Your task to perform on an android device: turn on data saver in the chrome app Image 0: 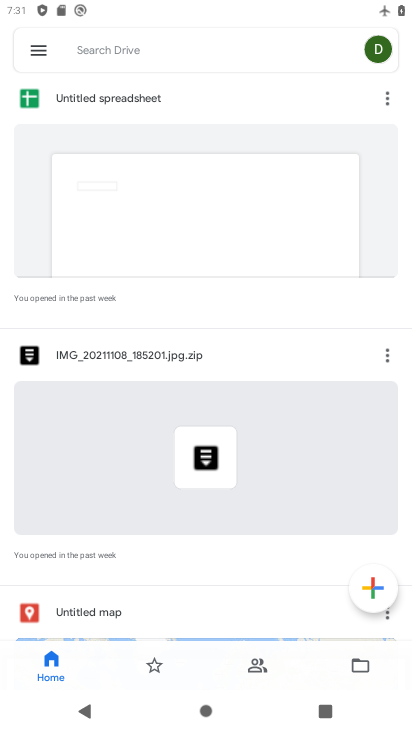
Step 0: press home button
Your task to perform on an android device: turn on data saver in the chrome app Image 1: 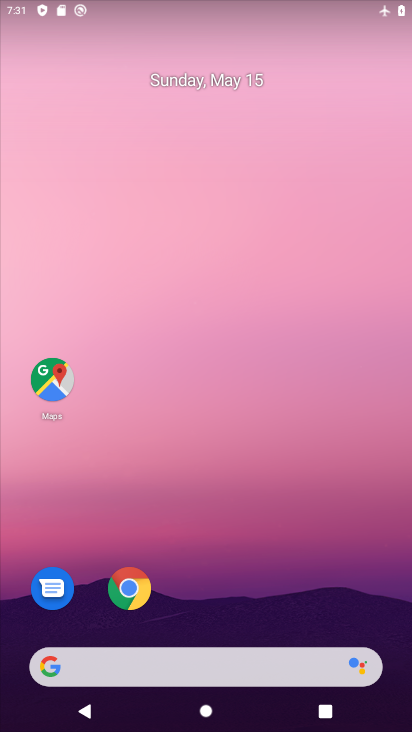
Step 1: click (128, 601)
Your task to perform on an android device: turn on data saver in the chrome app Image 2: 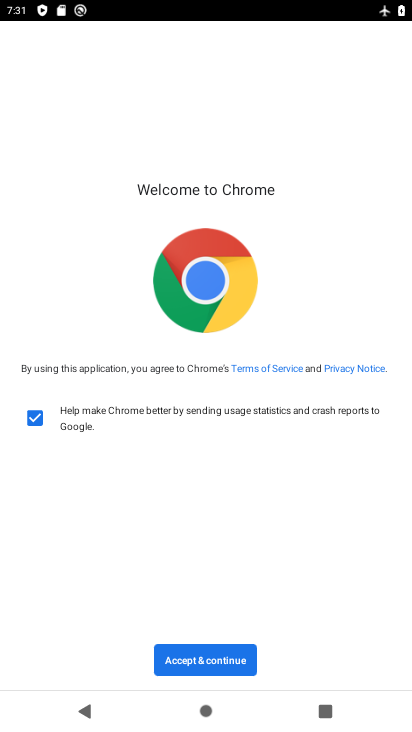
Step 2: click (219, 654)
Your task to perform on an android device: turn on data saver in the chrome app Image 3: 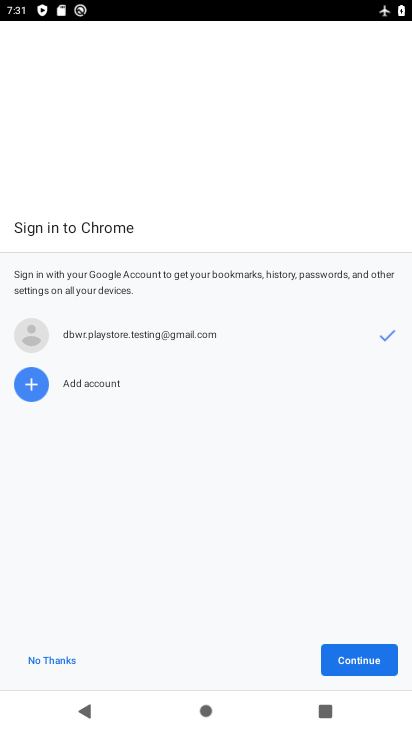
Step 3: click (355, 668)
Your task to perform on an android device: turn on data saver in the chrome app Image 4: 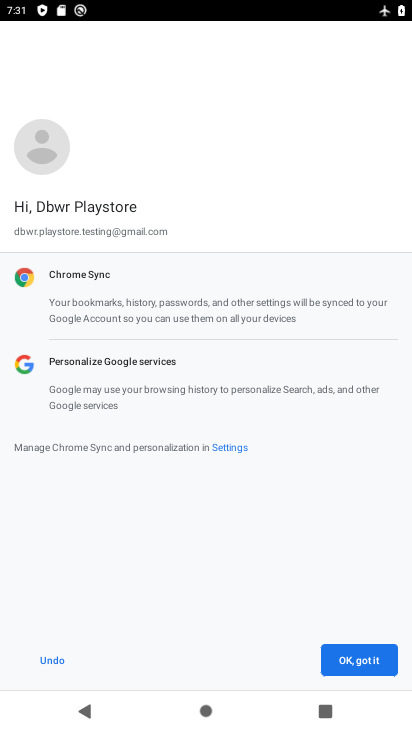
Step 4: click (355, 668)
Your task to perform on an android device: turn on data saver in the chrome app Image 5: 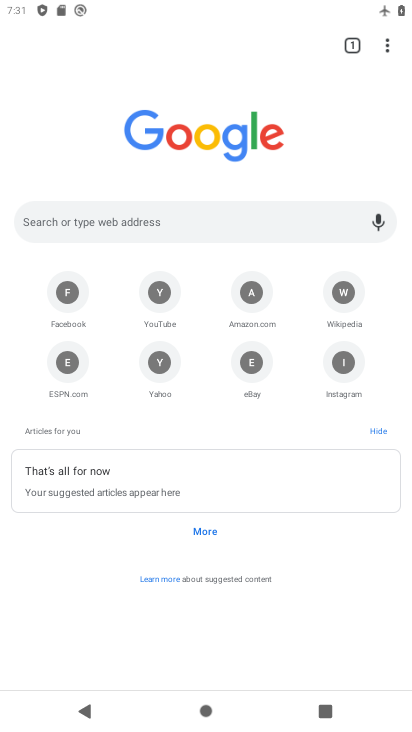
Step 5: click (391, 46)
Your task to perform on an android device: turn on data saver in the chrome app Image 6: 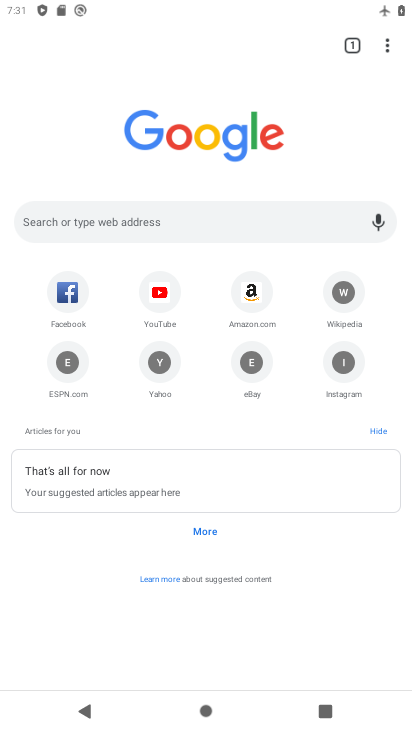
Step 6: click (388, 44)
Your task to perform on an android device: turn on data saver in the chrome app Image 7: 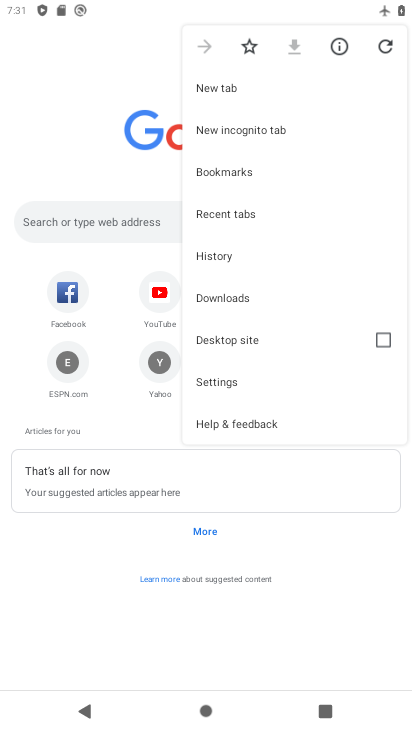
Step 7: click (224, 380)
Your task to perform on an android device: turn on data saver in the chrome app Image 8: 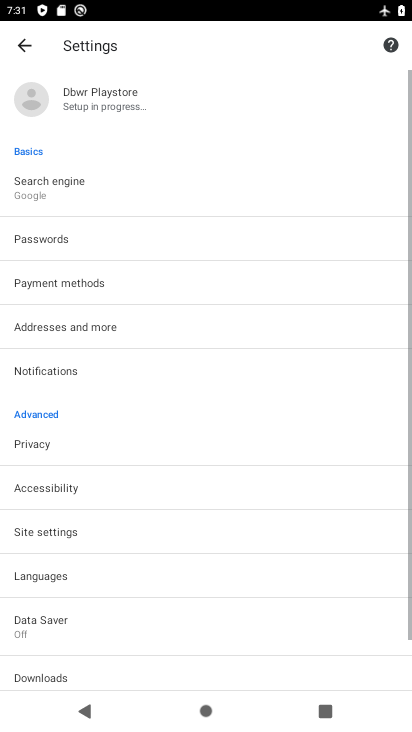
Step 8: click (104, 643)
Your task to perform on an android device: turn on data saver in the chrome app Image 9: 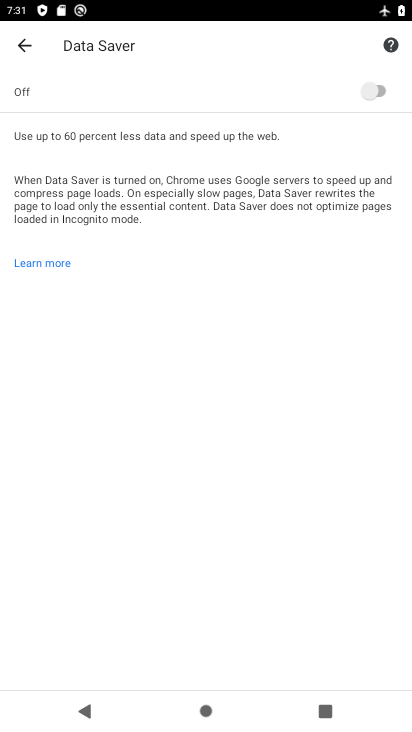
Step 9: click (353, 95)
Your task to perform on an android device: turn on data saver in the chrome app Image 10: 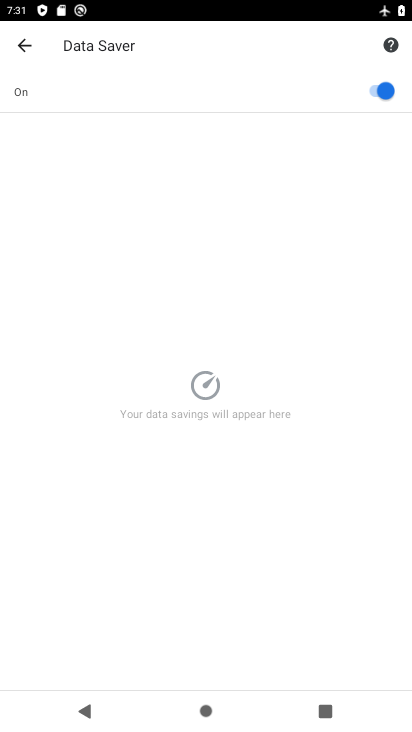
Step 10: task complete